Your task to perform on an android device: View the shopping cart on amazon. Add macbook to the cart on amazon Image 0: 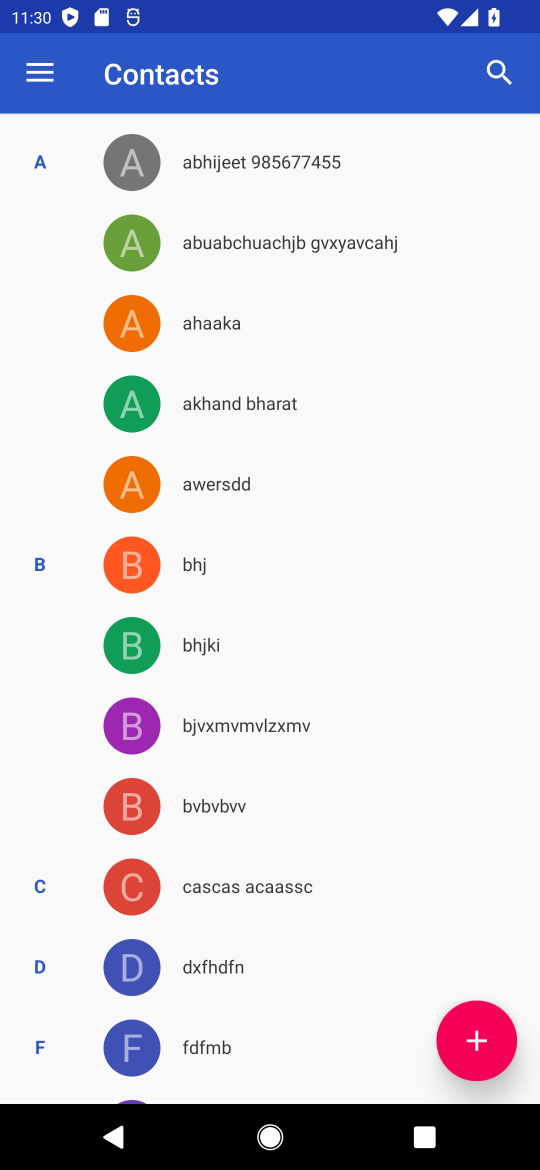
Step 0: press home button
Your task to perform on an android device: View the shopping cart on amazon. Add macbook to the cart on amazon Image 1: 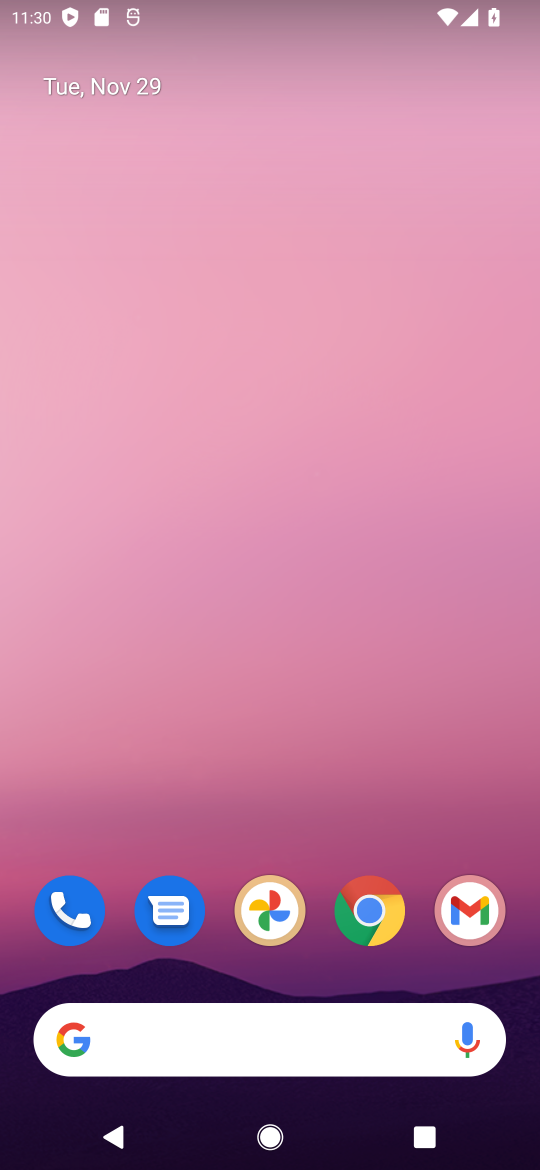
Step 1: click (374, 916)
Your task to perform on an android device: View the shopping cart on amazon. Add macbook to the cart on amazon Image 2: 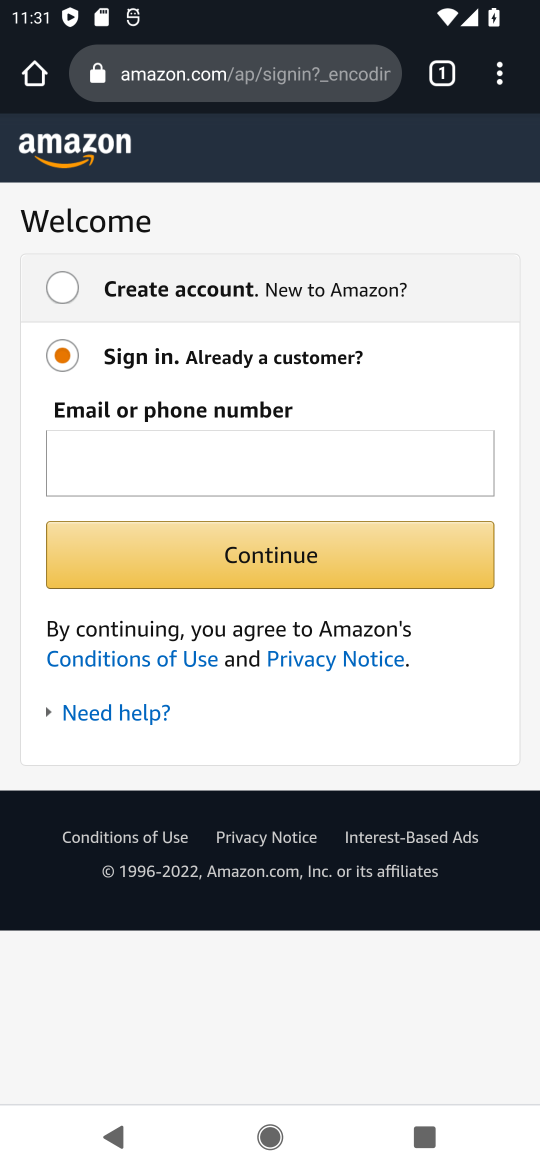
Step 2: press back button
Your task to perform on an android device: View the shopping cart on amazon. Add macbook to the cart on amazon Image 3: 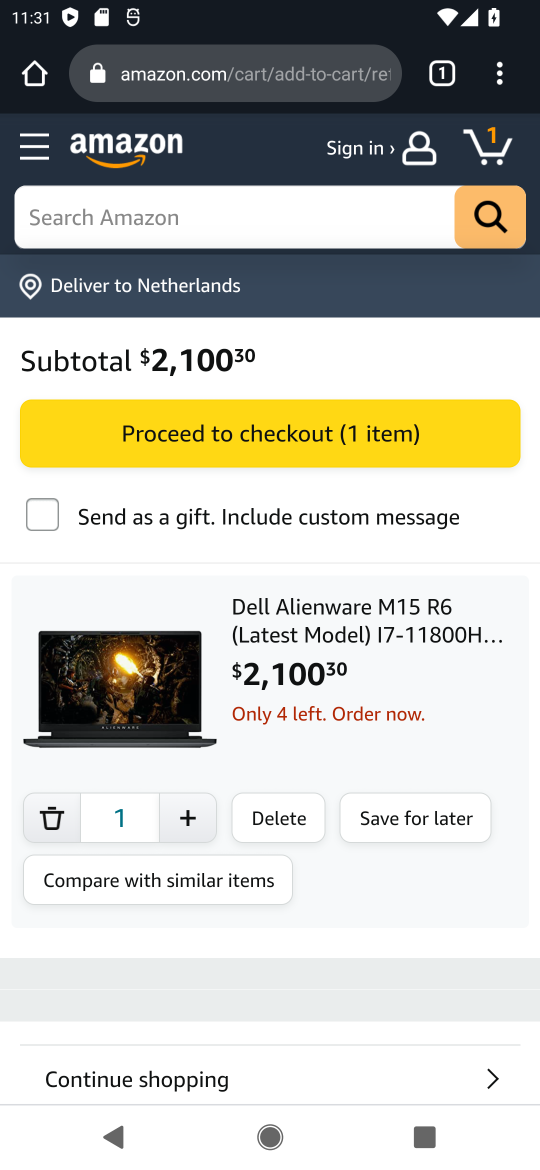
Step 3: click (163, 227)
Your task to perform on an android device: View the shopping cart on amazon. Add macbook to the cart on amazon Image 4: 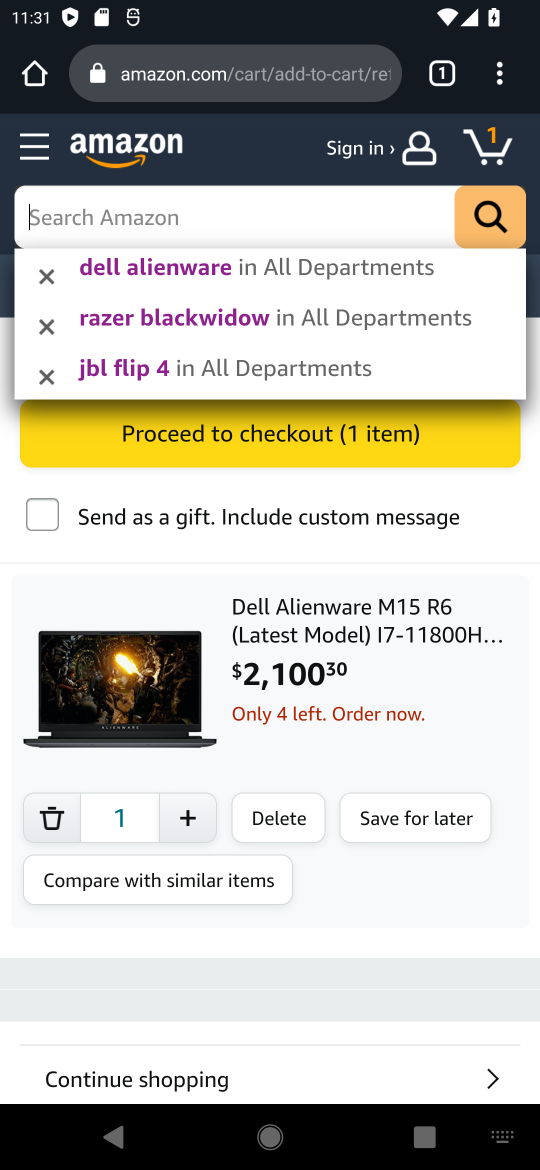
Step 4: type "macbook "
Your task to perform on an android device: View the shopping cart on amazon. Add macbook to the cart on amazon Image 5: 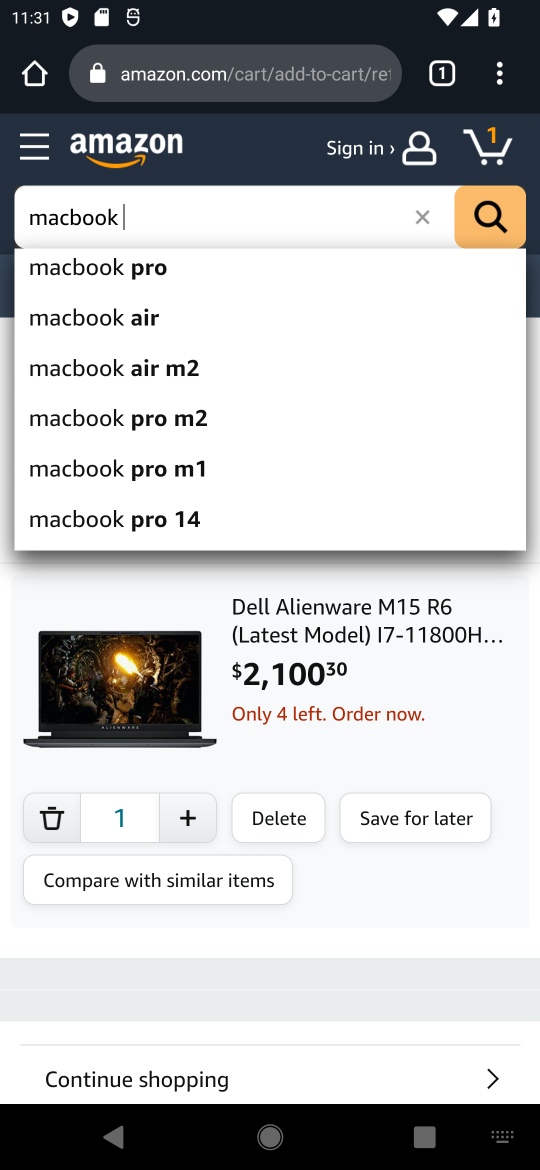
Step 5: click (477, 225)
Your task to perform on an android device: View the shopping cart on amazon. Add macbook to the cart on amazon Image 6: 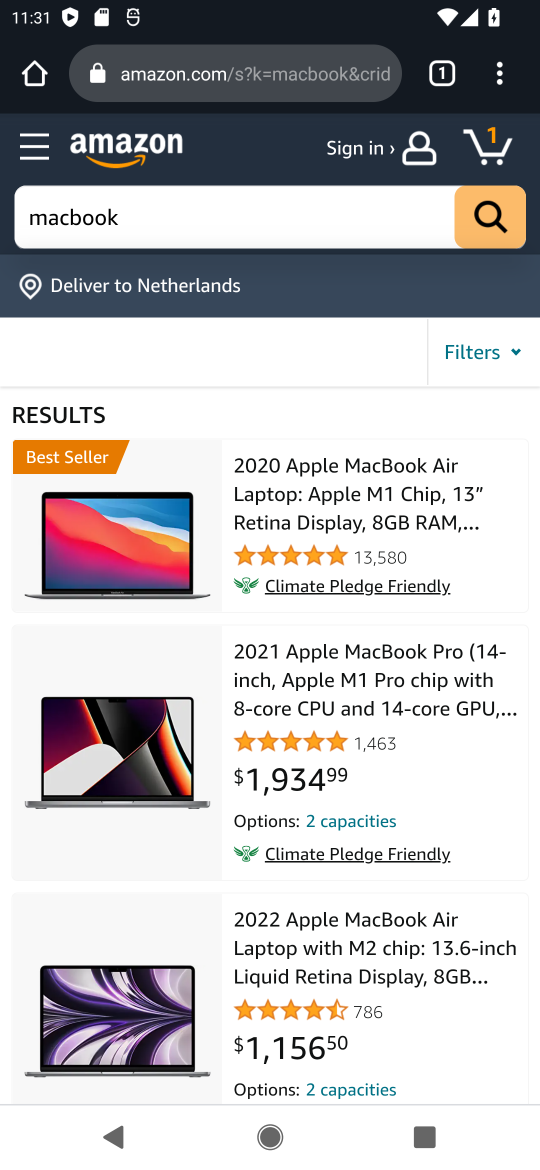
Step 6: click (297, 696)
Your task to perform on an android device: View the shopping cart on amazon. Add macbook to the cart on amazon Image 7: 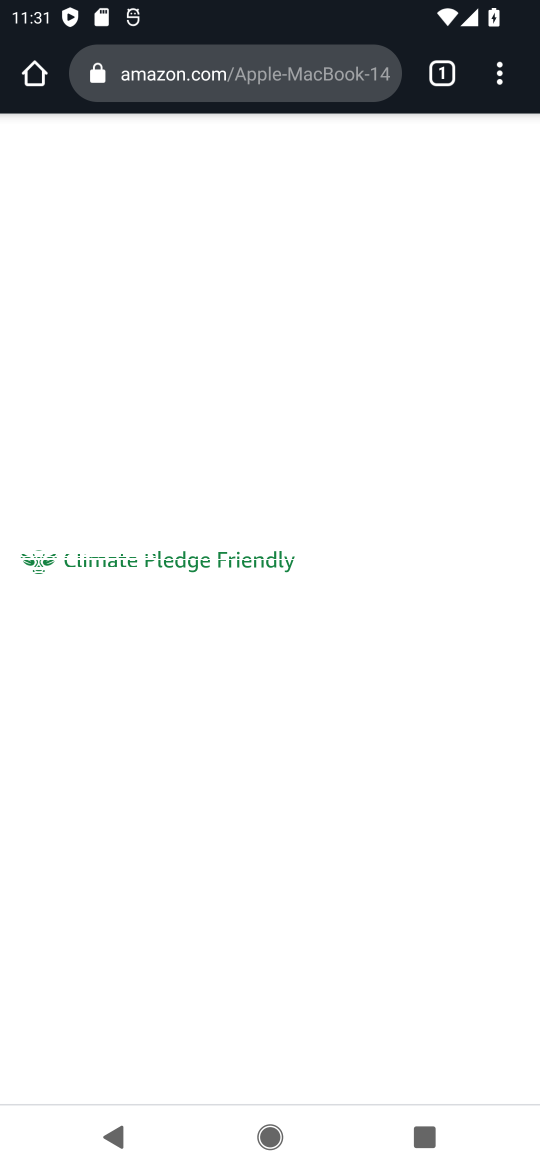
Step 7: drag from (379, 872) to (346, 363)
Your task to perform on an android device: View the shopping cart on amazon. Add macbook to the cart on amazon Image 8: 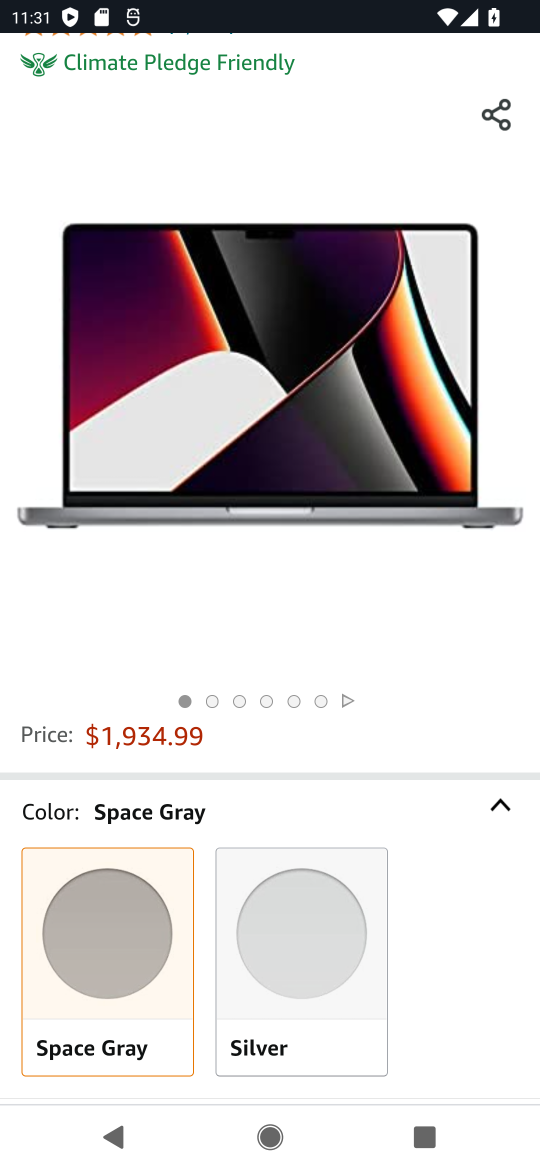
Step 8: drag from (350, 783) to (312, 317)
Your task to perform on an android device: View the shopping cart on amazon. Add macbook to the cart on amazon Image 9: 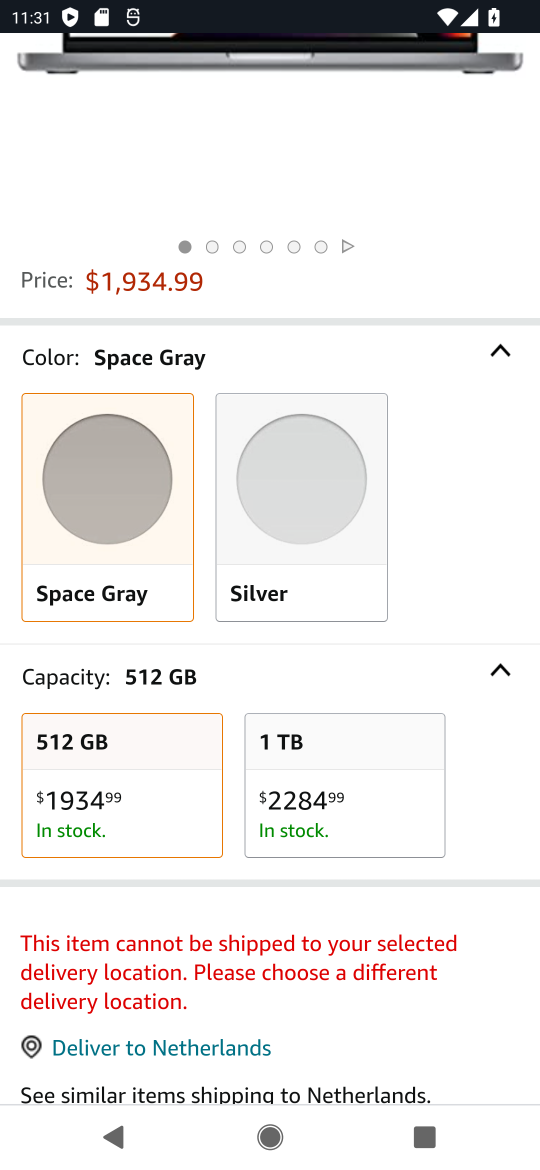
Step 9: drag from (416, 772) to (370, 411)
Your task to perform on an android device: View the shopping cart on amazon. Add macbook to the cart on amazon Image 10: 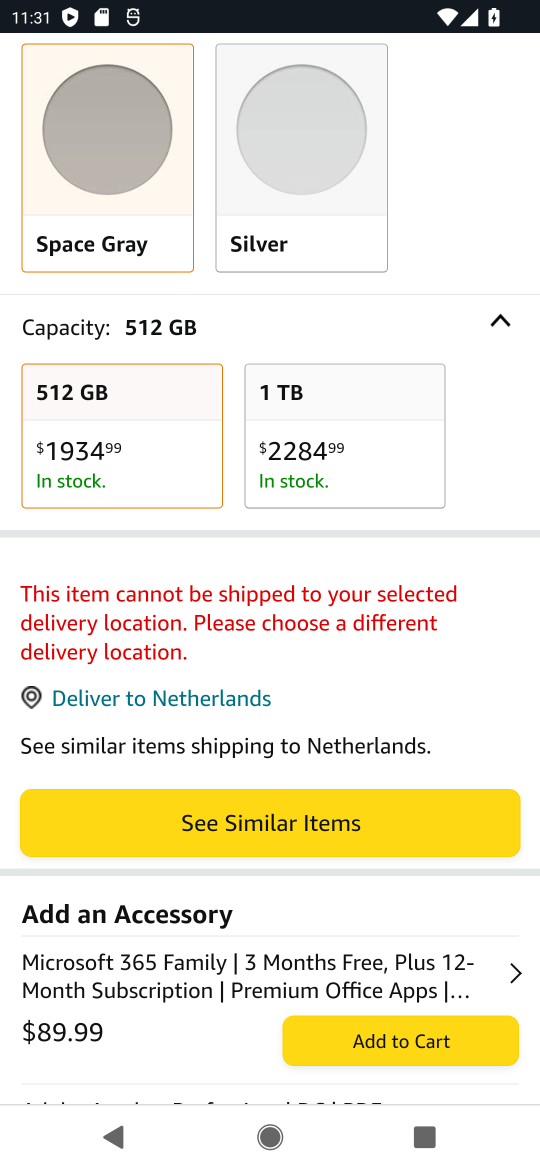
Step 10: press back button
Your task to perform on an android device: View the shopping cart on amazon. Add macbook to the cart on amazon Image 11: 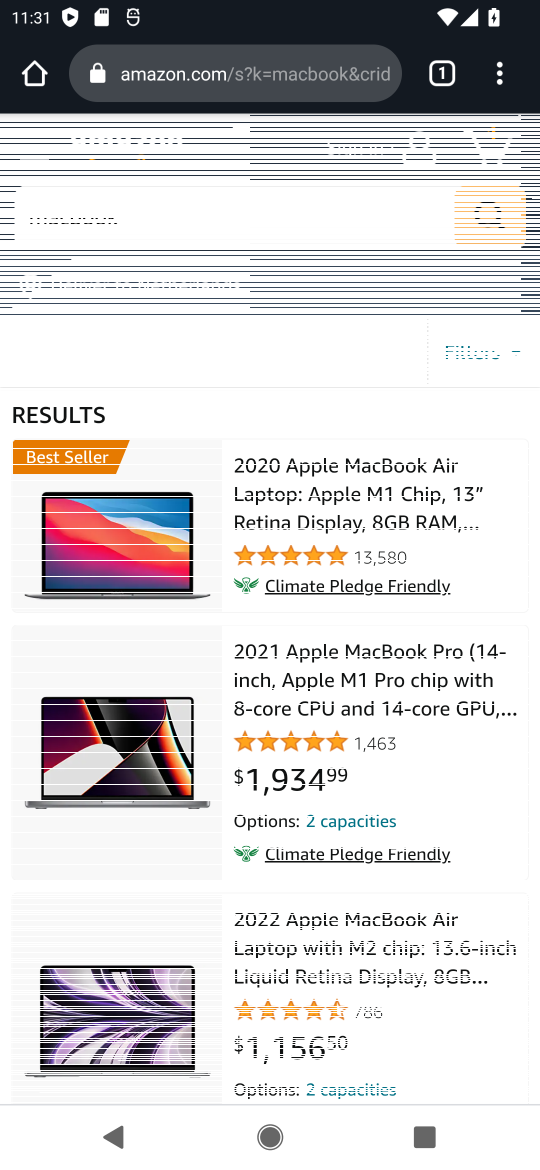
Step 11: drag from (306, 839) to (317, 528)
Your task to perform on an android device: View the shopping cart on amazon. Add macbook to the cart on amazon Image 12: 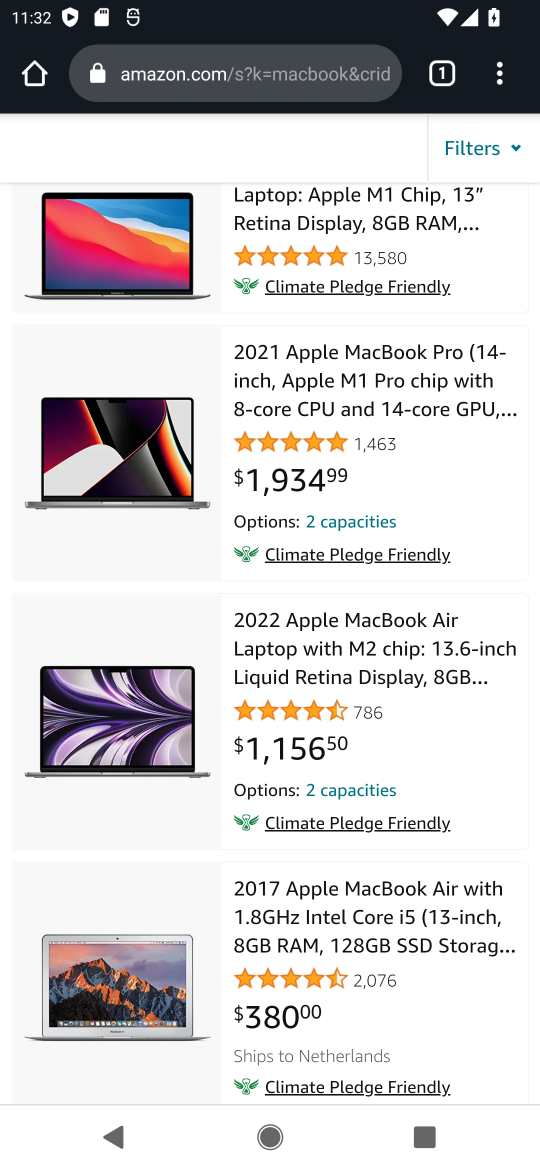
Step 12: drag from (288, 886) to (282, 698)
Your task to perform on an android device: View the shopping cart on amazon. Add macbook to the cart on amazon Image 13: 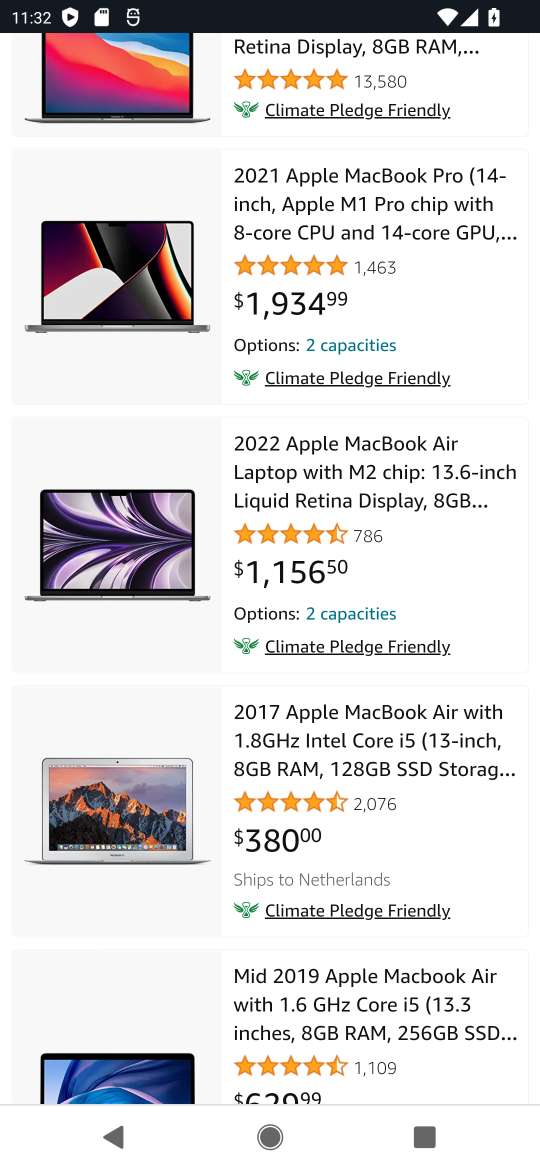
Step 13: click (284, 741)
Your task to perform on an android device: View the shopping cart on amazon. Add macbook to the cart on amazon Image 14: 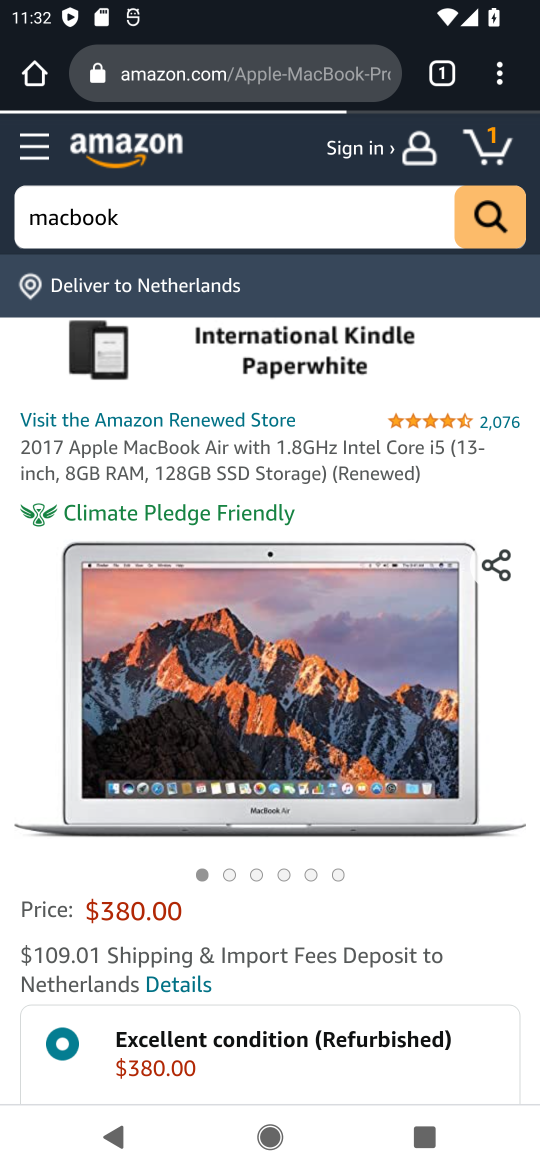
Step 14: drag from (354, 934) to (310, 379)
Your task to perform on an android device: View the shopping cart on amazon. Add macbook to the cart on amazon Image 15: 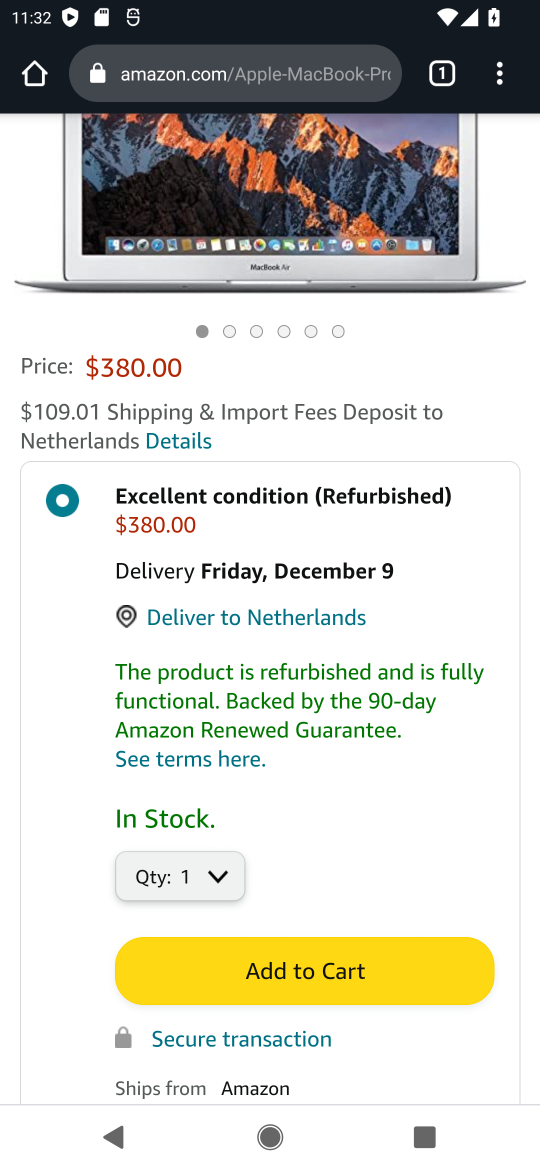
Step 15: drag from (305, 795) to (290, 578)
Your task to perform on an android device: View the shopping cart on amazon. Add macbook to the cart on amazon Image 16: 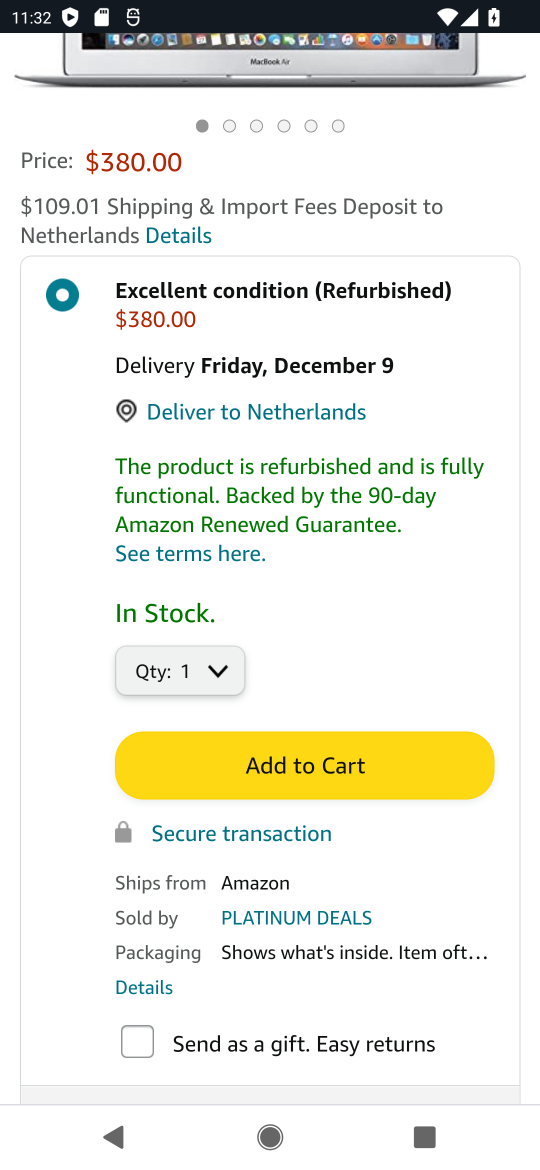
Step 16: click (265, 759)
Your task to perform on an android device: View the shopping cart on amazon. Add macbook to the cart on amazon Image 17: 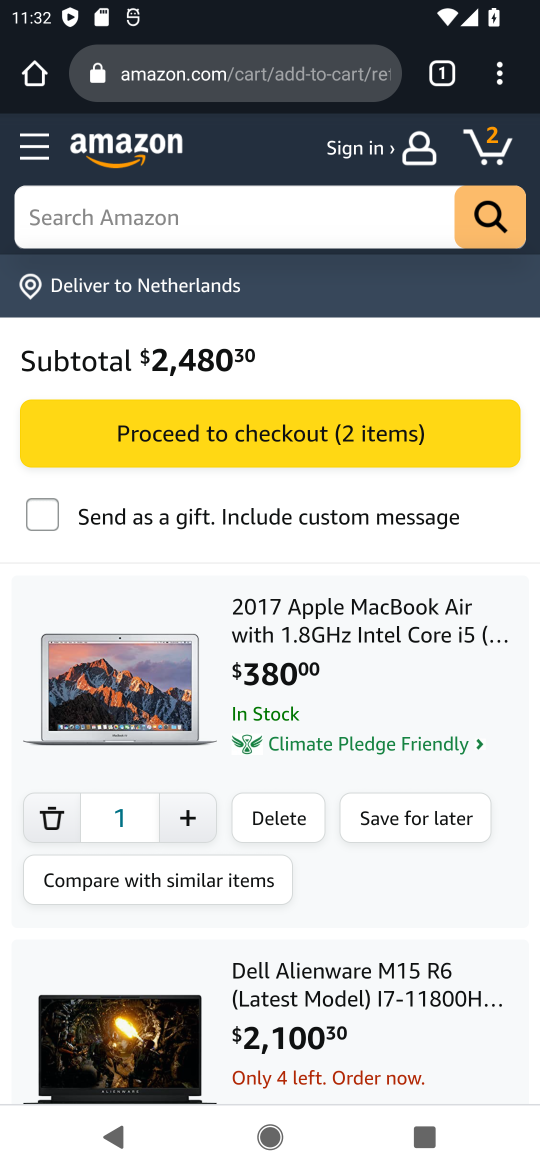
Step 17: task complete